Your task to perform on an android device: Clear the cart on bestbuy. Add macbook pro 13 inch to the cart on bestbuy, then select checkout. Image 0: 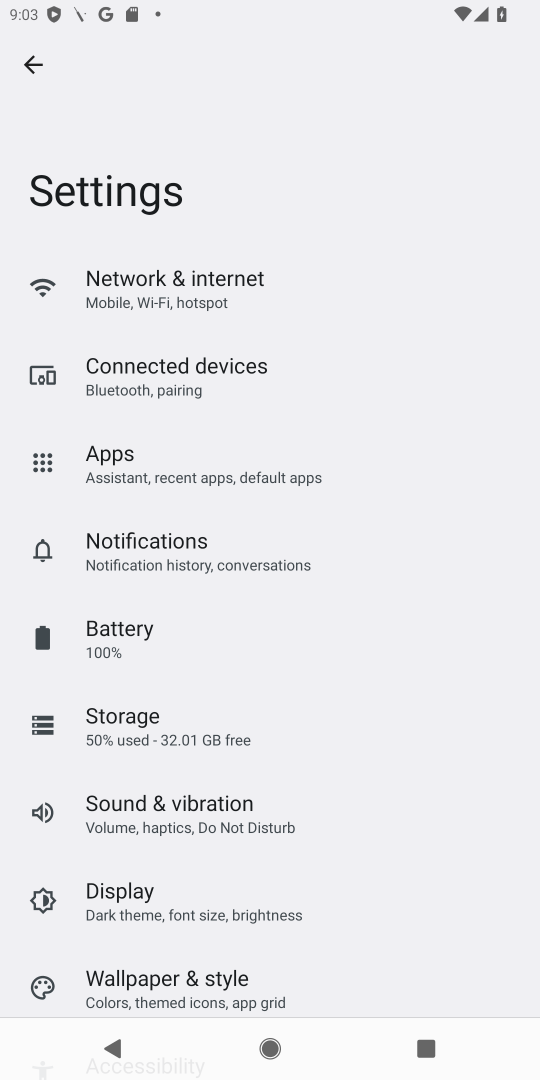
Step 0: press home button
Your task to perform on an android device: Clear the cart on bestbuy. Add macbook pro 13 inch to the cart on bestbuy, then select checkout. Image 1: 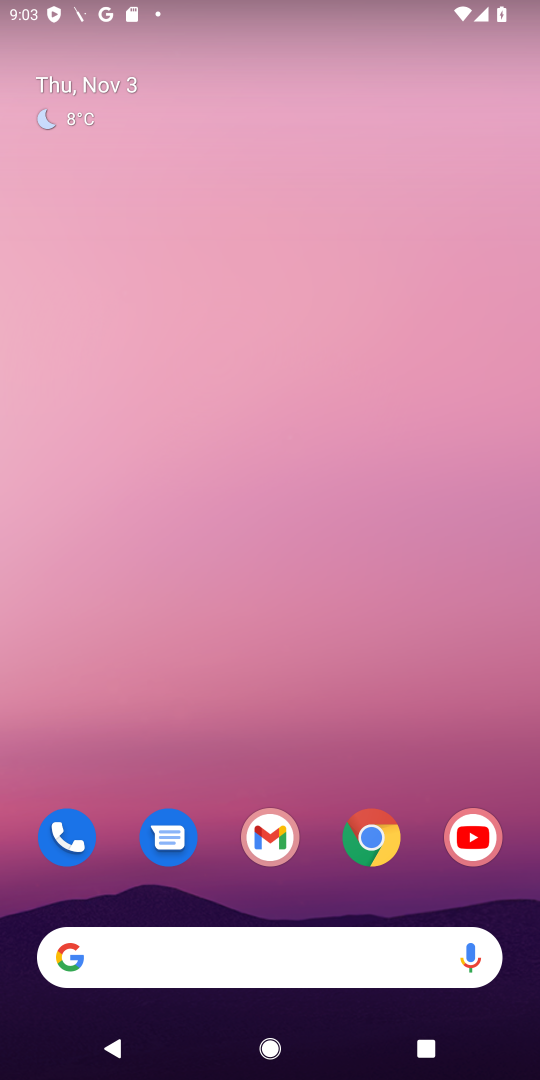
Step 1: click (380, 847)
Your task to perform on an android device: Clear the cart on bestbuy. Add macbook pro 13 inch to the cart on bestbuy, then select checkout. Image 2: 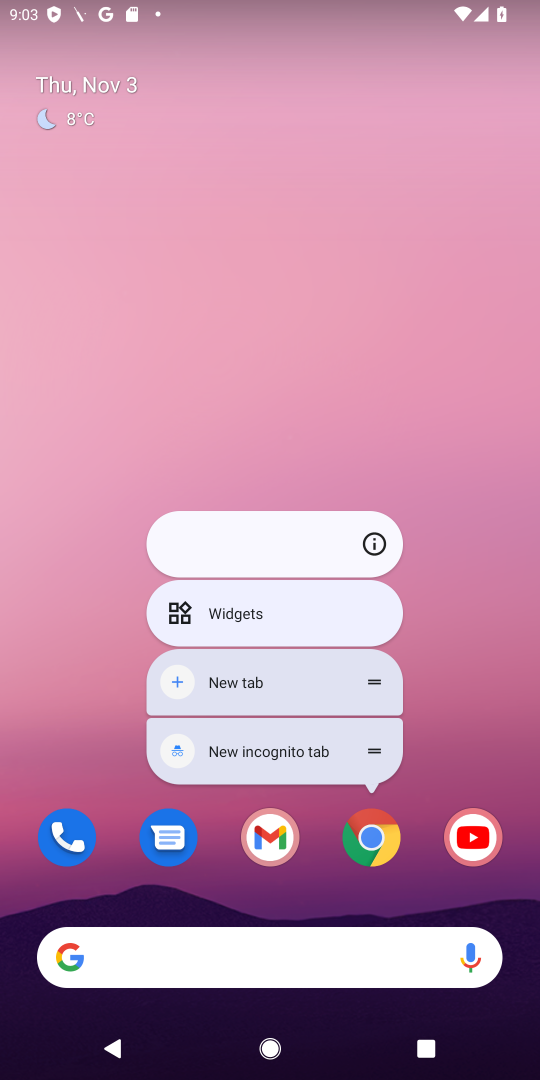
Step 2: click (380, 847)
Your task to perform on an android device: Clear the cart on bestbuy. Add macbook pro 13 inch to the cart on bestbuy, then select checkout. Image 3: 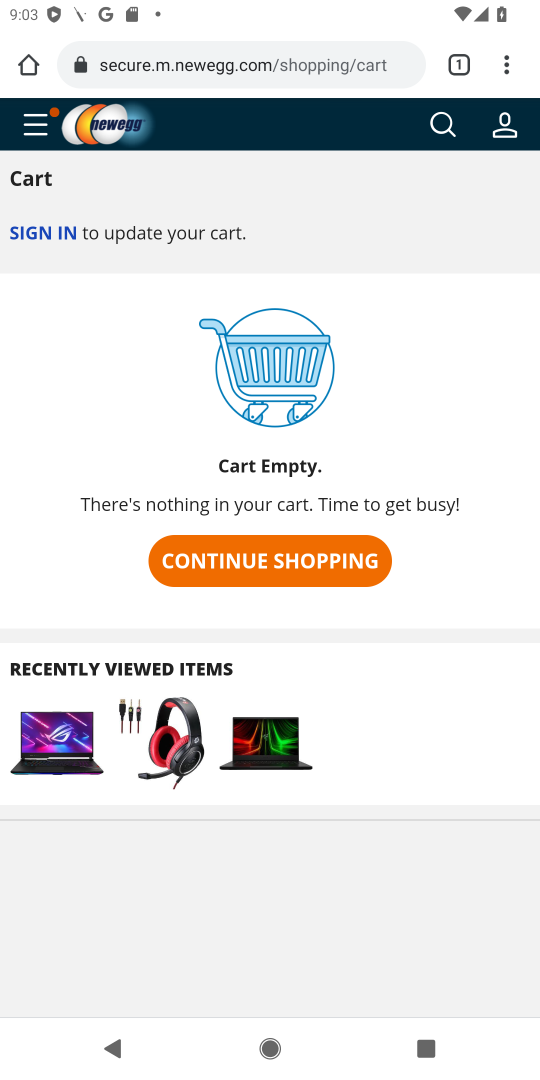
Step 3: click (297, 60)
Your task to perform on an android device: Clear the cart on bestbuy. Add macbook pro 13 inch to the cart on bestbuy, then select checkout. Image 4: 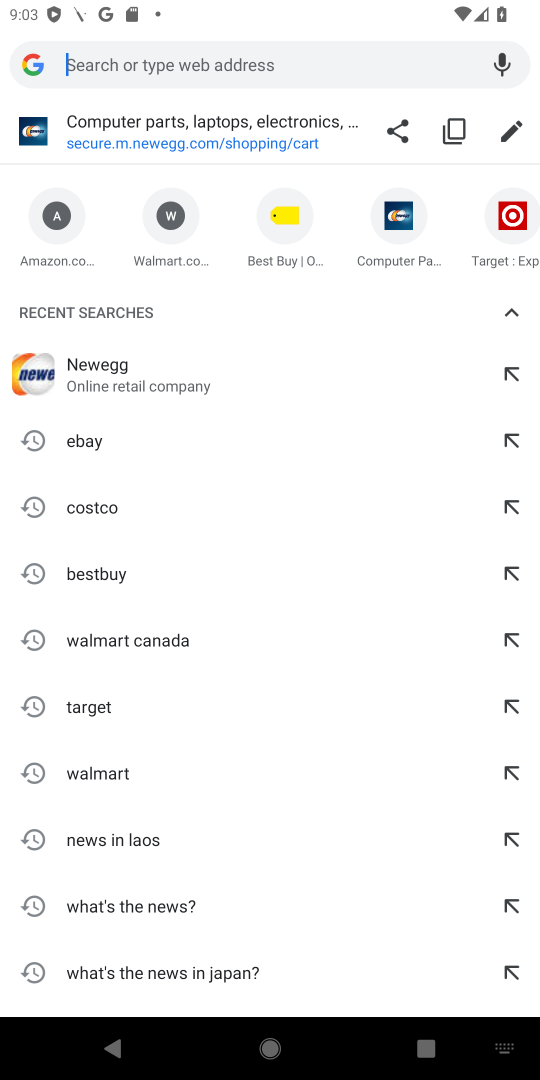
Step 4: click (93, 571)
Your task to perform on an android device: Clear the cart on bestbuy. Add macbook pro 13 inch to the cart on bestbuy, then select checkout. Image 5: 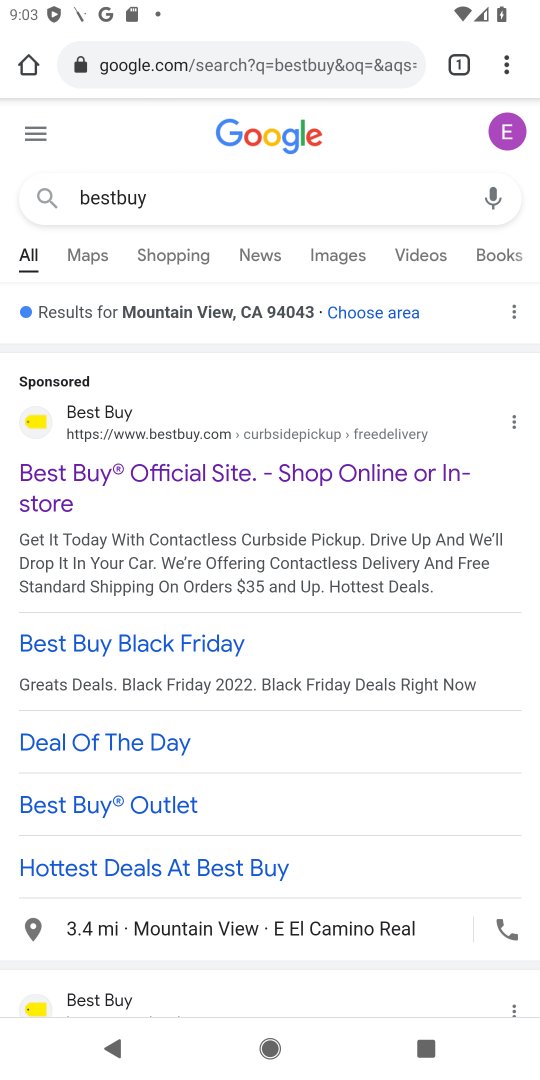
Step 5: click (168, 476)
Your task to perform on an android device: Clear the cart on bestbuy. Add macbook pro 13 inch to the cart on bestbuy, then select checkout. Image 6: 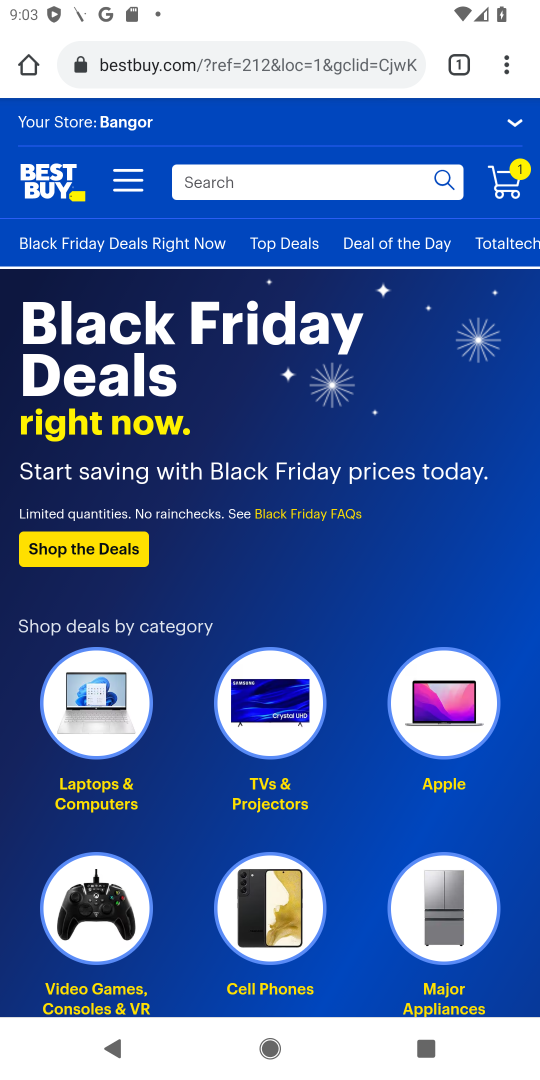
Step 6: click (327, 184)
Your task to perform on an android device: Clear the cart on bestbuy. Add macbook pro 13 inch to the cart on bestbuy, then select checkout. Image 7: 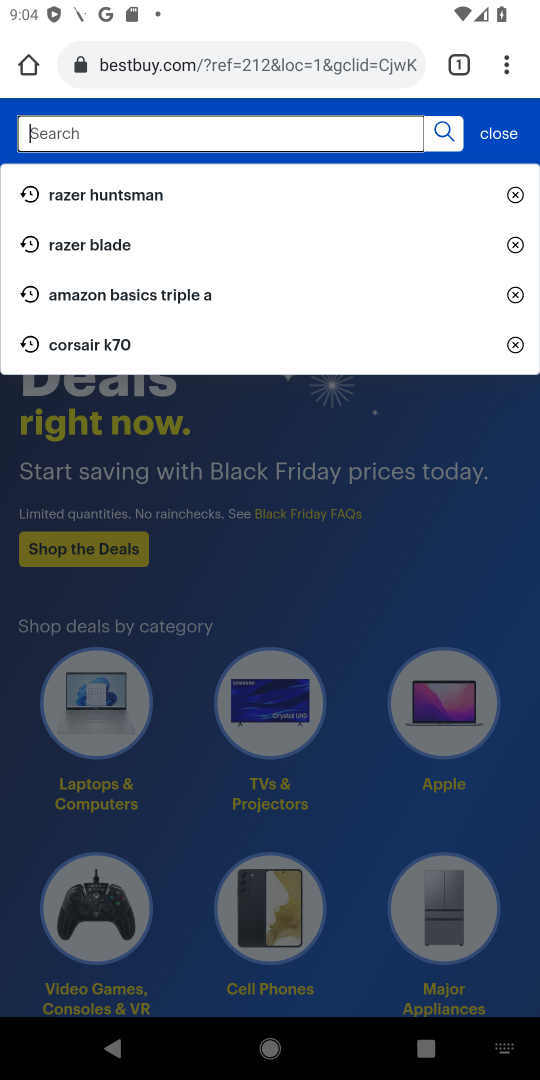
Step 7: type "macbook pro 13 inch"
Your task to perform on an android device: Clear the cart on bestbuy. Add macbook pro 13 inch to the cart on bestbuy, then select checkout. Image 8: 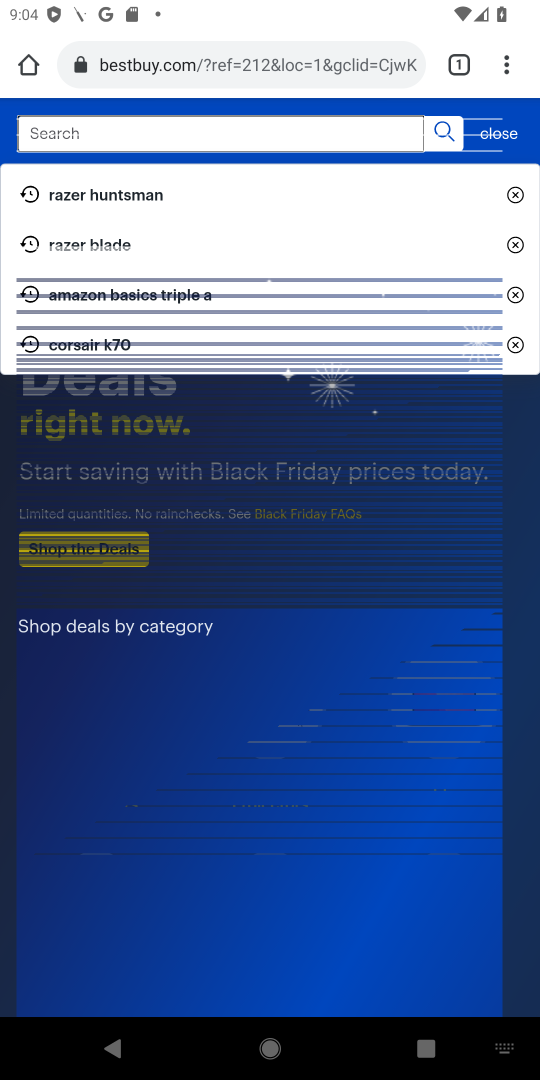
Step 8: press enter
Your task to perform on an android device: Clear the cart on bestbuy. Add macbook pro 13 inch to the cart on bestbuy, then select checkout. Image 9: 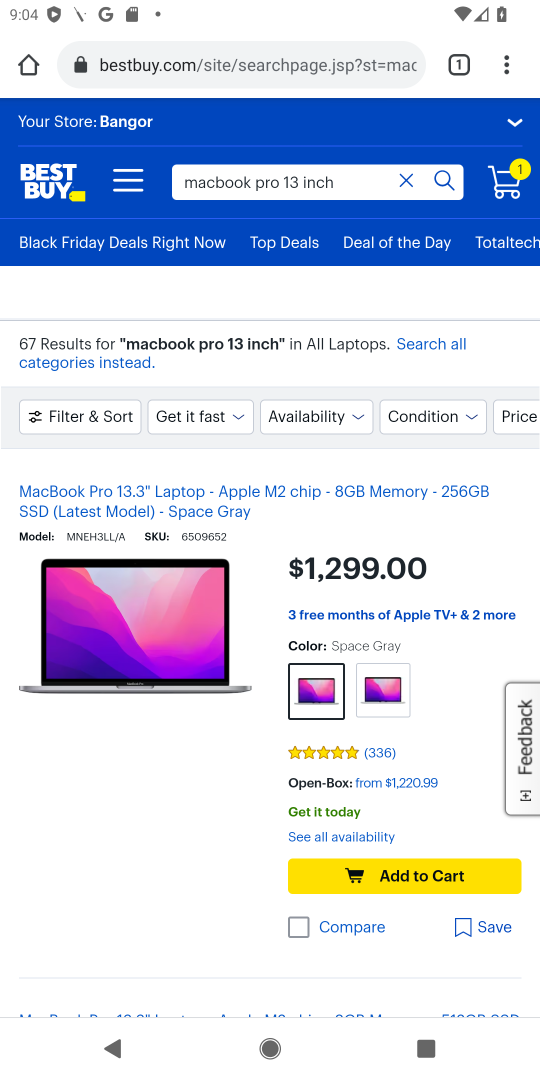
Step 9: click (355, 561)
Your task to perform on an android device: Clear the cart on bestbuy. Add macbook pro 13 inch to the cart on bestbuy, then select checkout. Image 10: 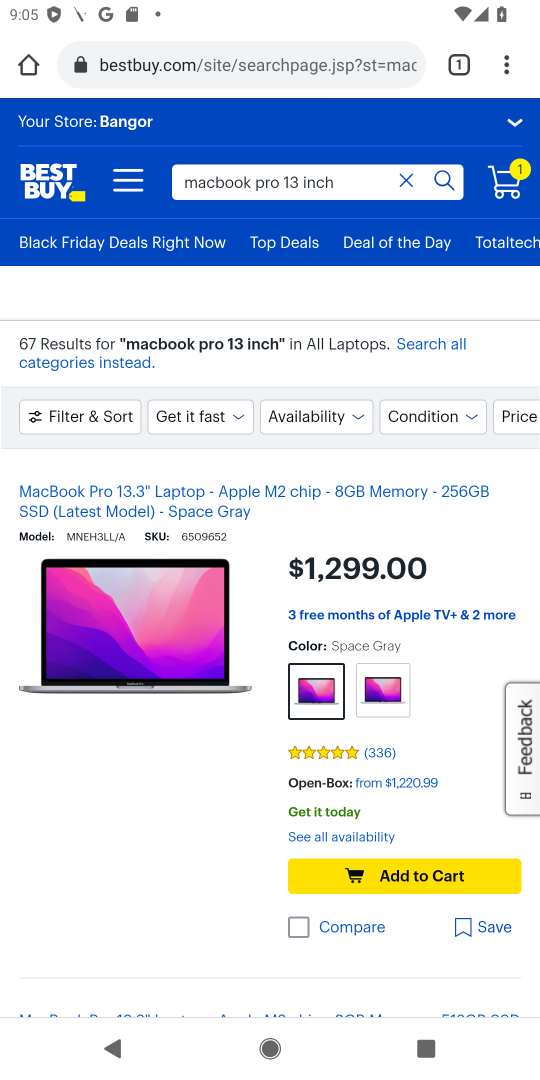
Step 10: task complete